Your task to perform on an android device: turn on notifications settings in the gmail app Image 0: 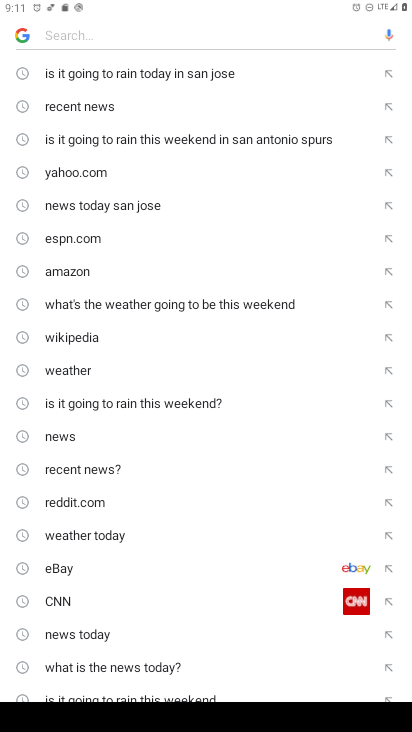
Step 0: press home button
Your task to perform on an android device: turn on notifications settings in the gmail app Image 1: 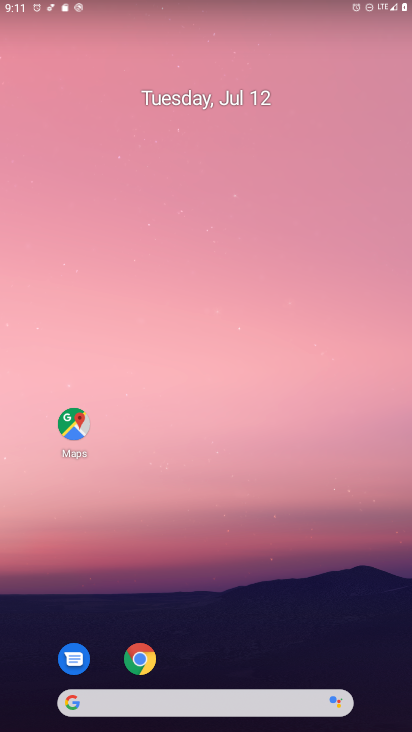
Step 1: drag from (179, 700) to (266, 256)
Your task to perform on an android device: turn on notifications settings in the gmail app Image 2: 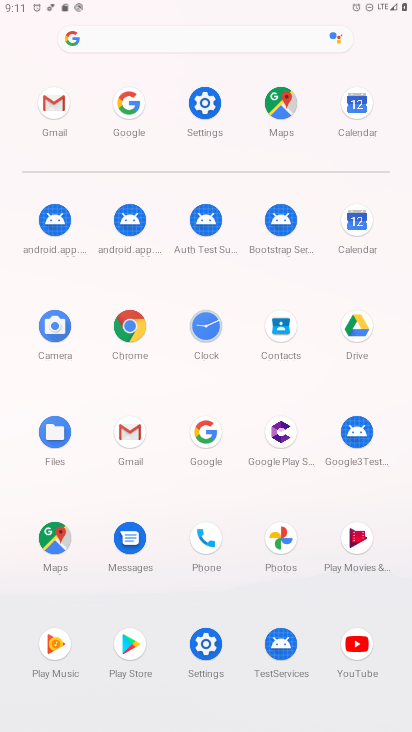
Step 2: click (54, 102)
Your task to perform on an android device: turn on notifications settings in the gmail app Image 3: 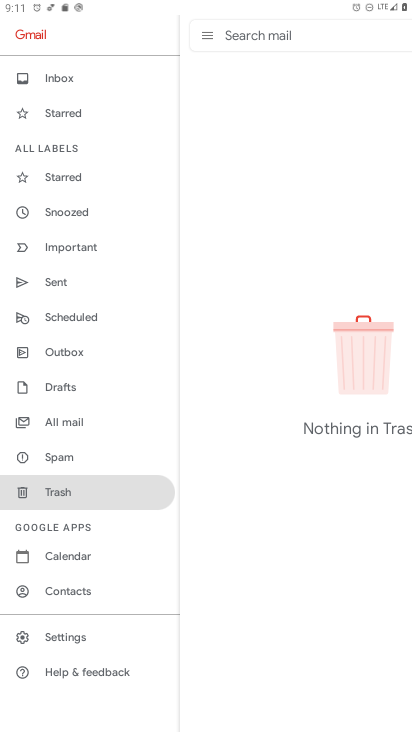
Step 3: click (73, 639)
Your task to perform on an android device: turn on notifications settings in the gmail app Image 4: 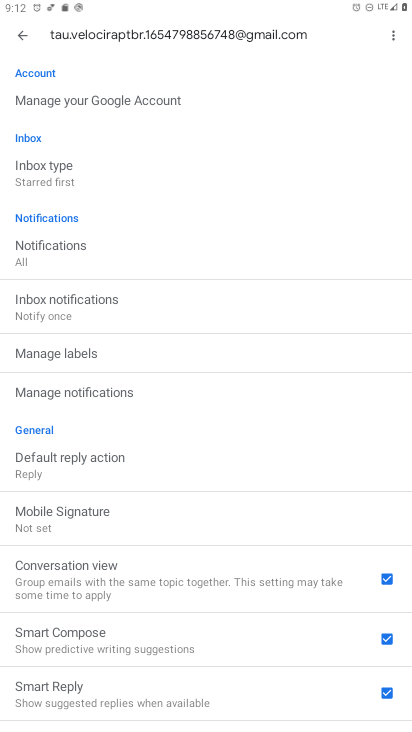
Step 4: click (74, 392)
Your task to perform on an android device: turn on notifications settings in the gmail app Image 5: 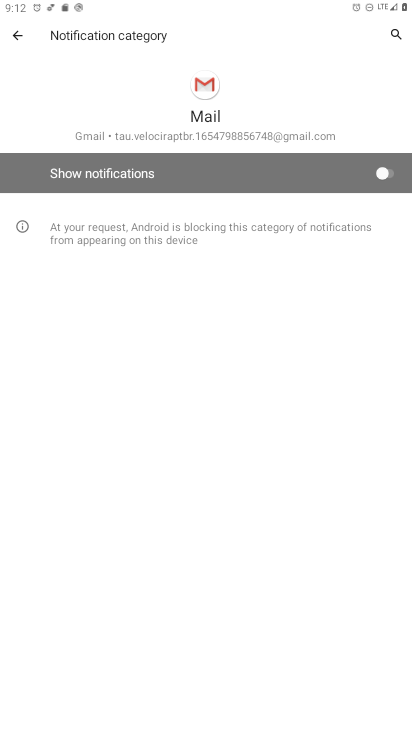
Step 5: click (383, 174)
Your task to perform on an android device: turn on notifications settings in the gmail app Image 6: 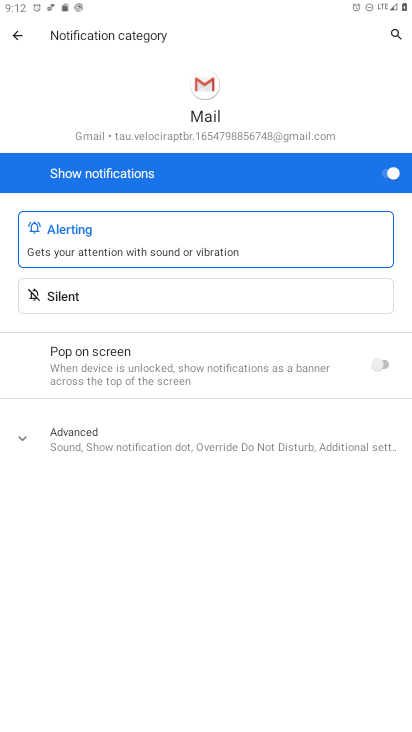
Step 6: task complete